Your task to perform on an android device: Show me recent news Image 0: 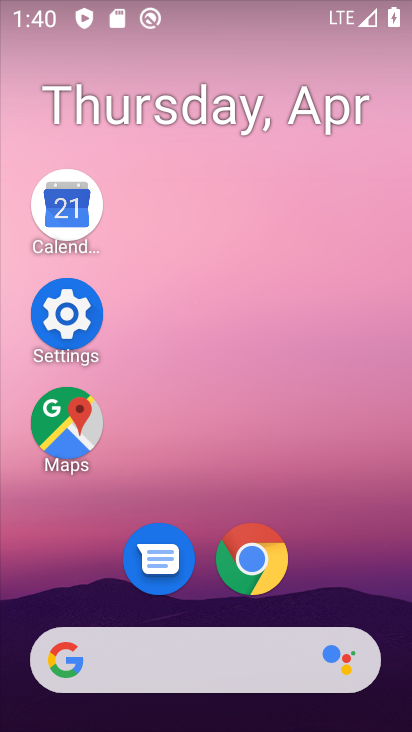
Step 0: drag from (221, 608) to (242, 6)
Your task to perform on an android device: Show me recent news Image 1: 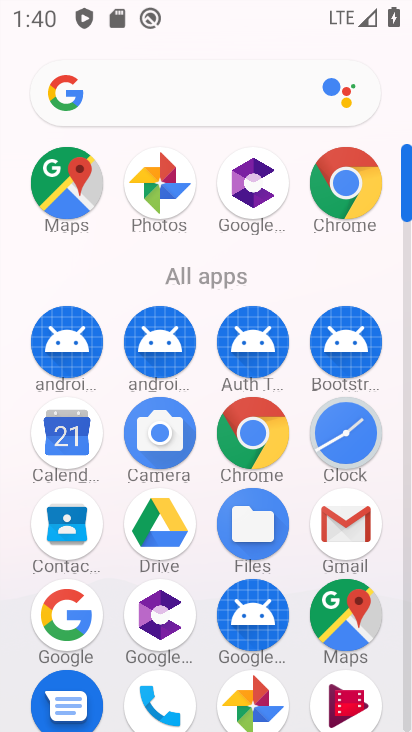
Step 1: drag from (60, 620) to (144, 249)
Your task to perform on an android device: Show me recent news Image 2: 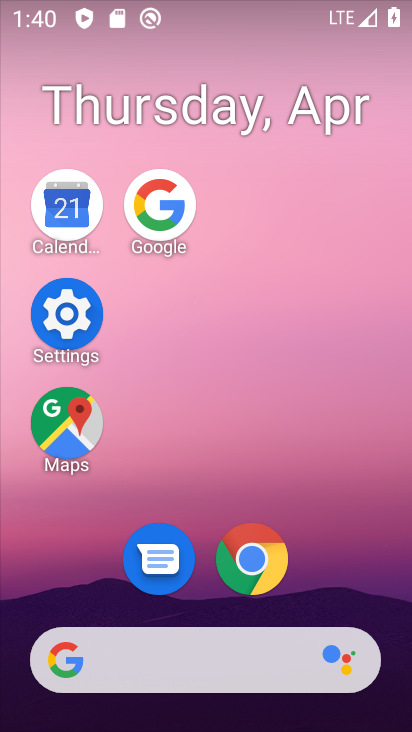
Step 2: click (154, 208)
Your task to perform on an android device: Show me recent news Image 3: 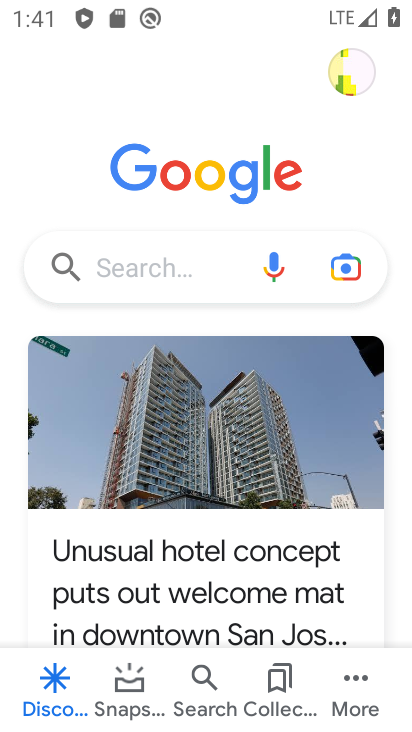
Step 3: click (118, 275)
Your task to perform on an android device: Show me recent news Image 4: 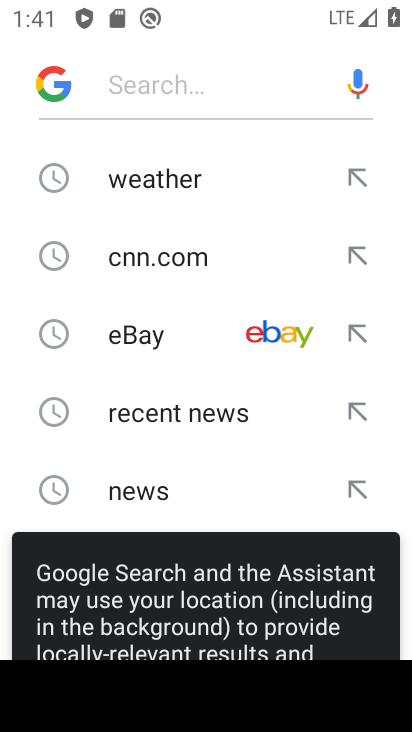
Step 4: click (176, 415)
Your task to perform on an android device: Show me recent news Image 5: 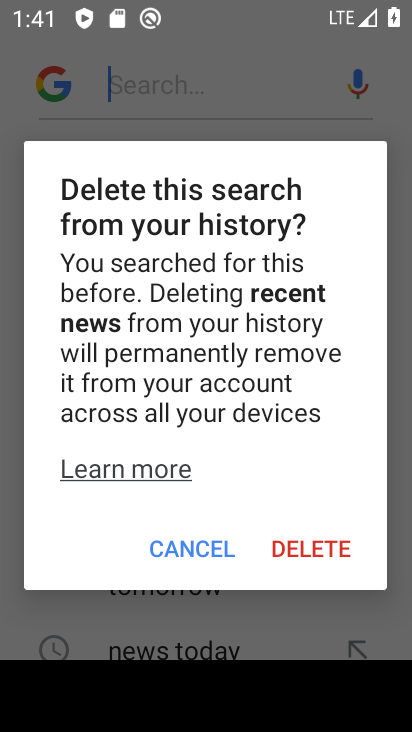
Step 5: click (243, 552)
Your task to perform on an android device: Show me recent news Image 6: 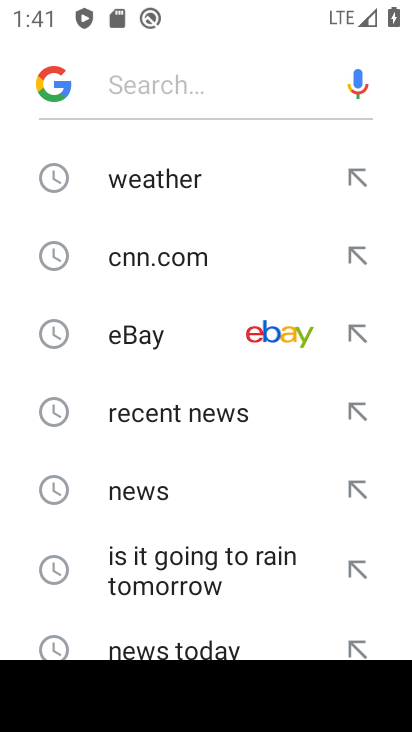
Step 6: click (226, 411)
Your task to perform on an android device: Show me recent news Image 7: 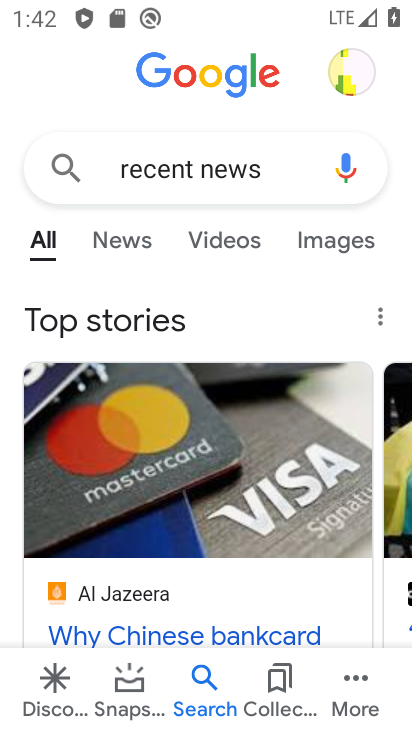
Step 7: task complete